Your task to perform on an android device: add a contact in the contacts app Image 0: 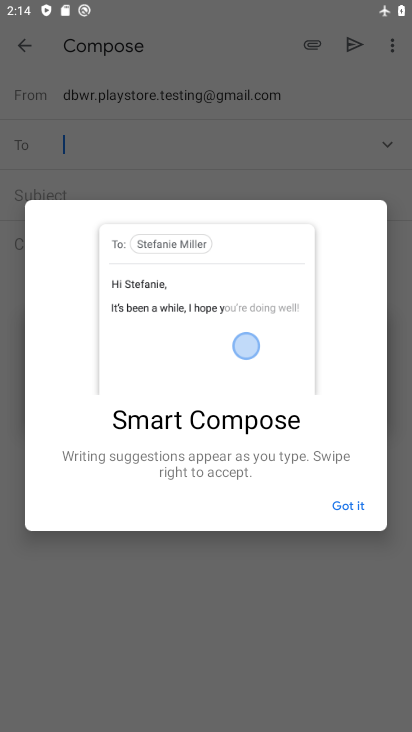
Step 0: press home button
Your task to perform on an android device: add a contact in the contacts app Image 1: 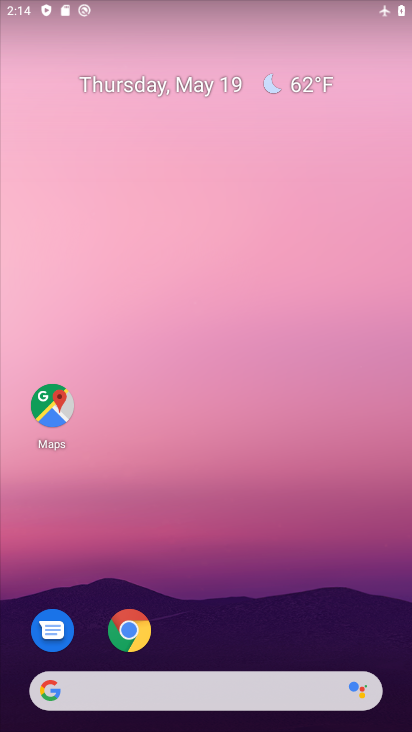
Step 1: drag from (361, 635) to (353, 254)
Your task to perform on an android device: add a contact in the contacts app Image 2: 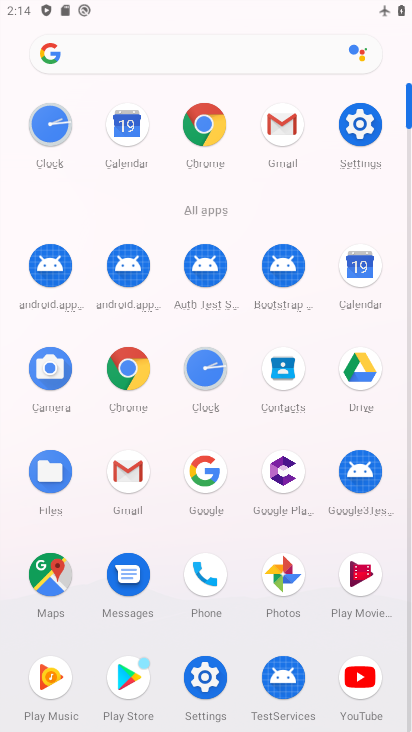
Step 2: click (290, 376)
Your task to perform on an android device: add a contact in the contacts app Image 3: 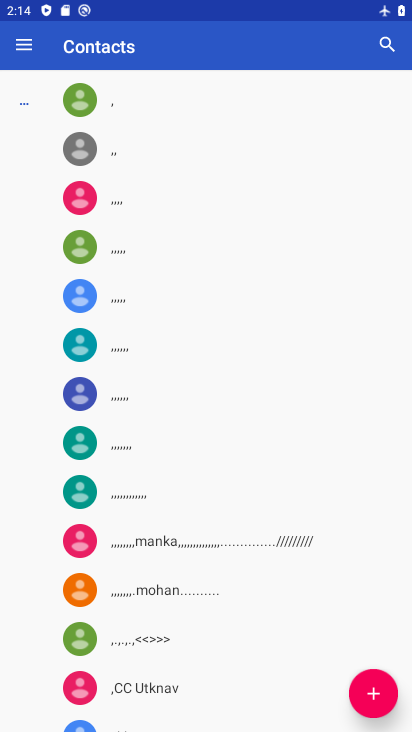
Step 3: click (372, 698)
Your task to perform on an android device: add a contact in the contacts app Image 4: 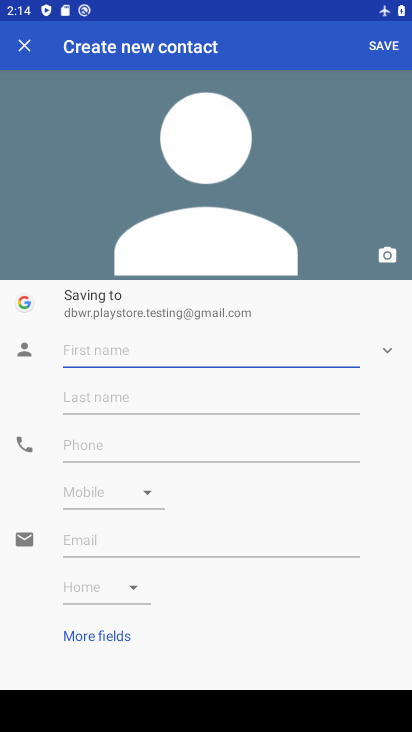
Step 4: click (172, 358)
Your task to perform on an android device: add a contact in the contacts app Image 5: 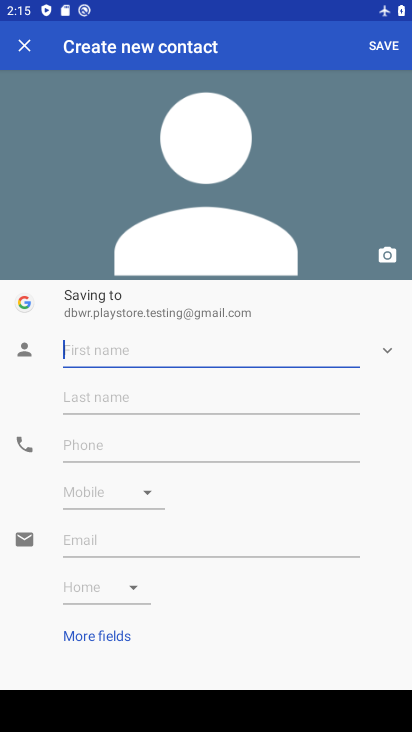
Step 5: type "maurya"
Your task to perform on an android device: add a contact in the contacts app Image 6: 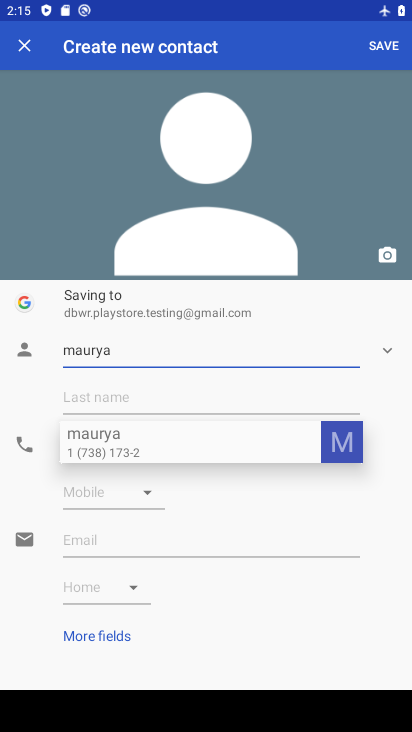
Step 6: click (387, 458)
Your task to perform on an android device: add a contact in the contacts app Image 7: 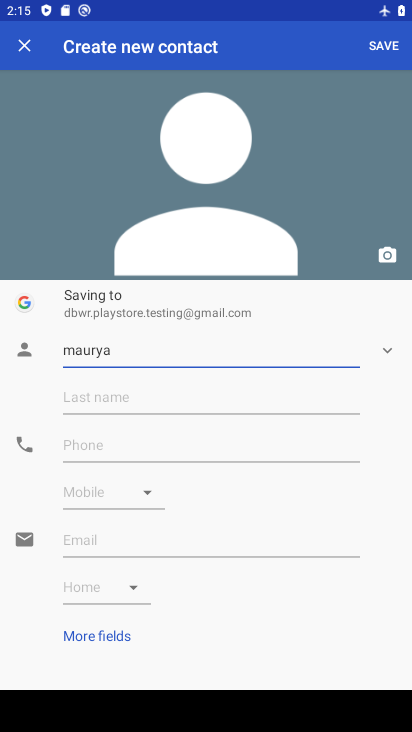
Step 7: click (349, 455)
Your task to perform on an android device: add a contact in the contacts app Image 8: 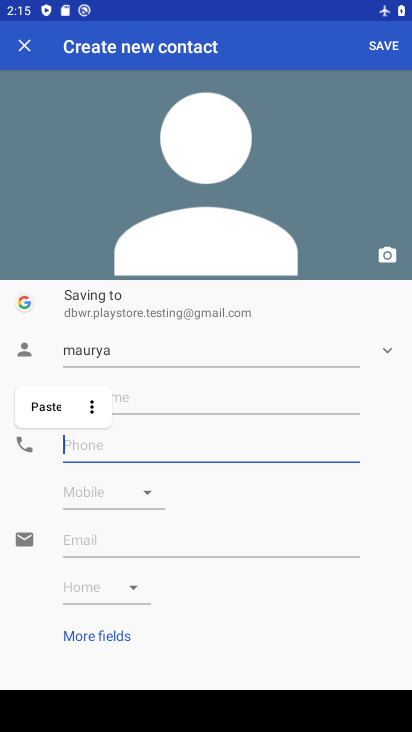
Step 8: type "89238472932"
Your task to perform on an android device: add a contact in the contacts app Image 9: 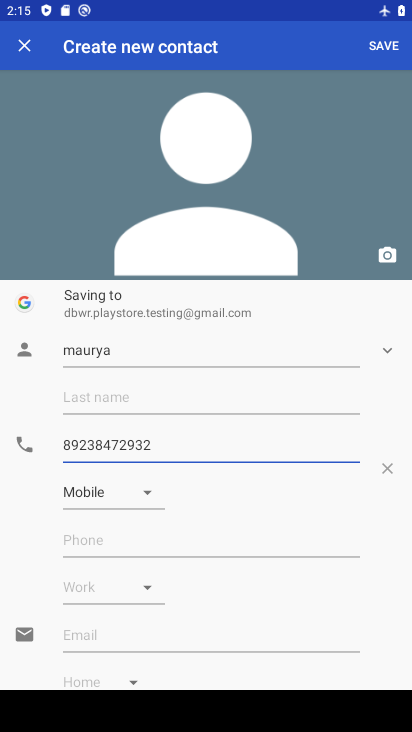
Step 9: click (372, 48)
Your task to perform on an android device: add a contact in the contacts app Image 10: 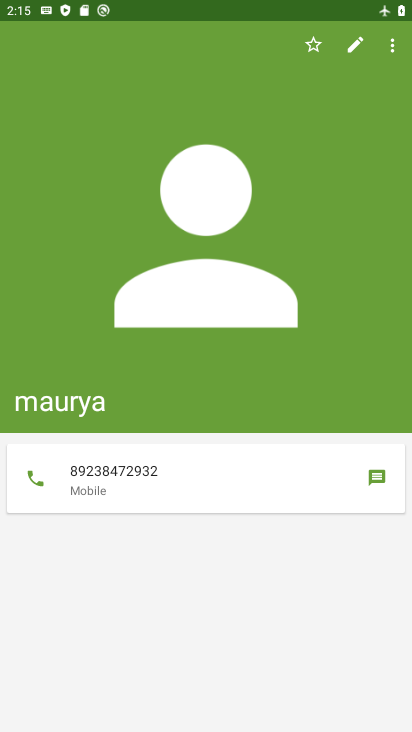
Step 10: task complete